Your task to perform on an android device: Open notification settings Image 0: 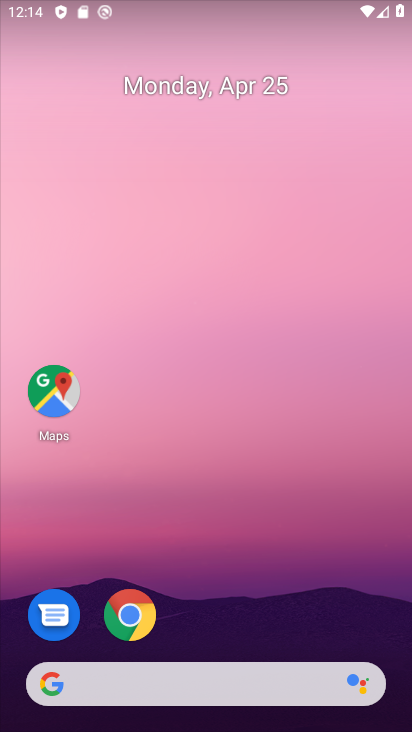
Step 0: drag from (222, 639) to (184, 28)
Your task to perform on an android device: Open notification settings Image 1: 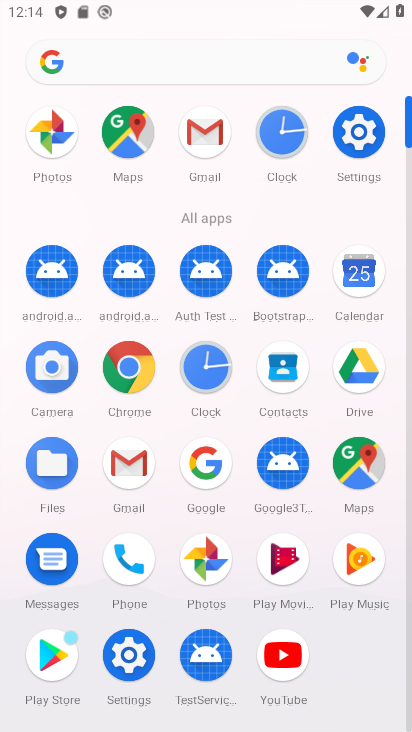
Step 1: click (364, 122)
Your task to perform on an android device: Open notification settings Image 2: 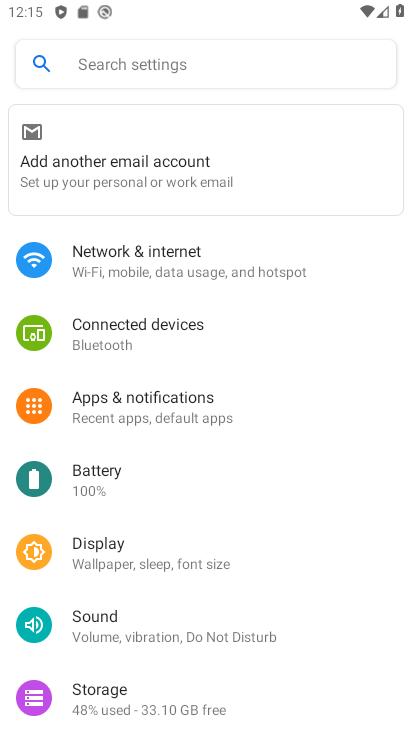
Step 2: click (172, 393)
Your task to perform on an android device: Open notification settings Image 3: 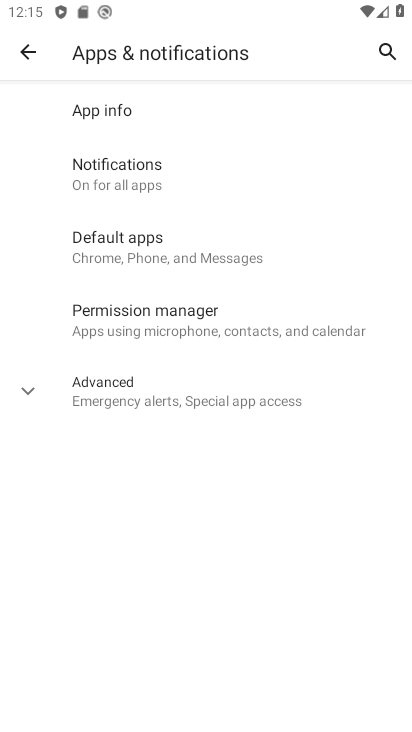
Step 3: click (87, 166)
Your task to perform on an android device: Open notification settings Image 4: 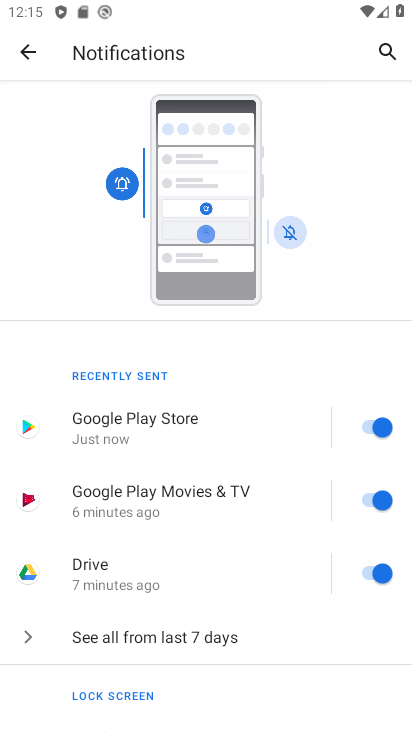
Step 4: drag from (141, 615) to (121, 151)
Your task to perform on an android device: Open notification settings Image 5: 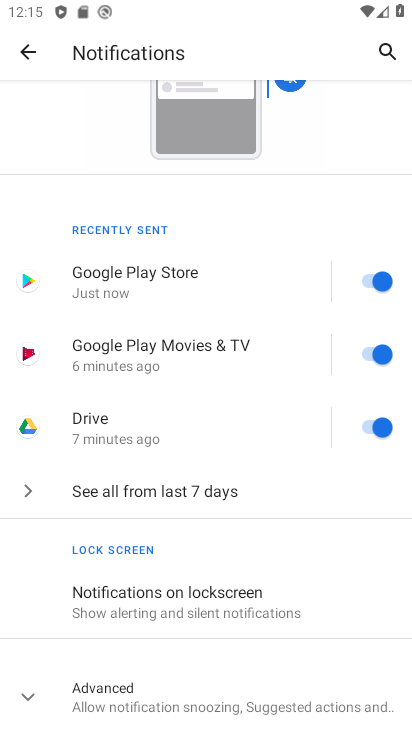
Step 5: click (145, 670)
Your task to perform on an android device: Open notification settings Image 6: 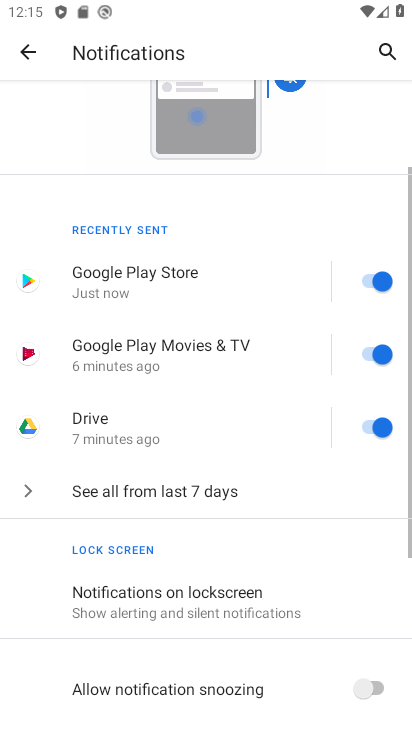
Step 6: task complete